Your task to perform on an android device: all mails in gmail Image 0: 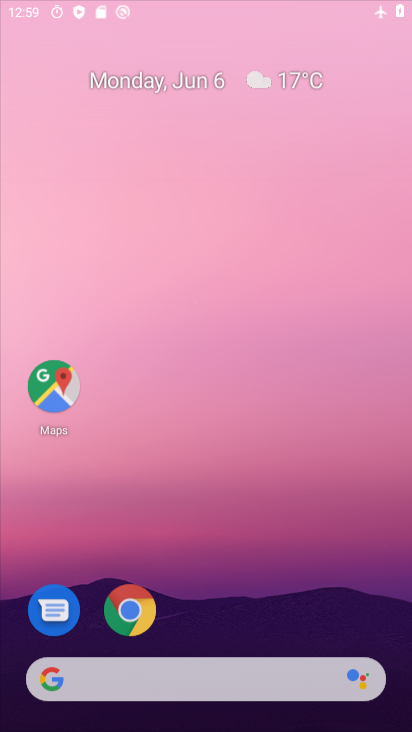
Step 0: click (146, 308)
Your task to perform on an android device: all mails in gmail Image 1: 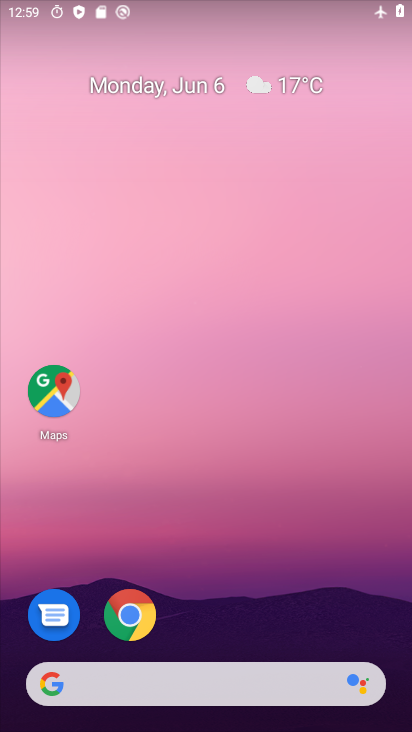
Step 1: drag from (205, 614) to (318, 118)
Your task to perform on an android device: all mails in gmail Image 2: 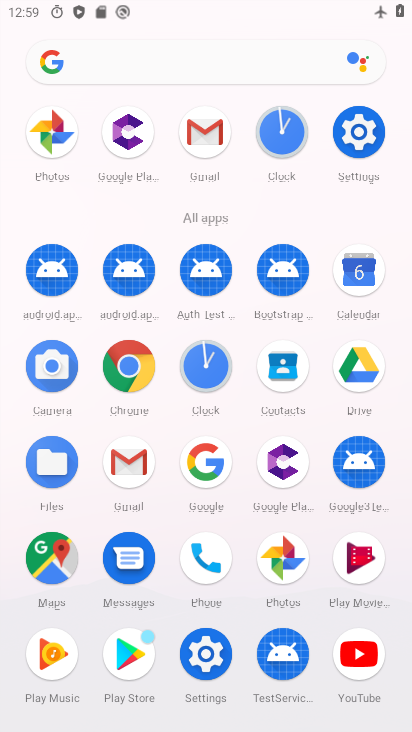
Step 2: click (134, 445)
Your task to perform on an android device: all mails in gmail Image 3: 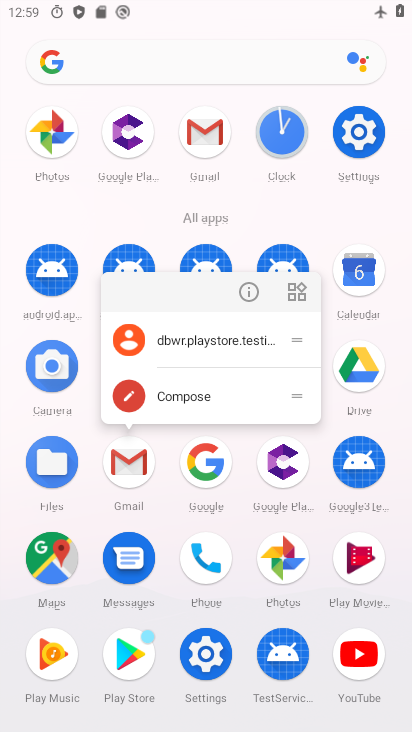
Step 3: click (257, 296)
Your task to perform on an android device: all mails in gmail Image 4: 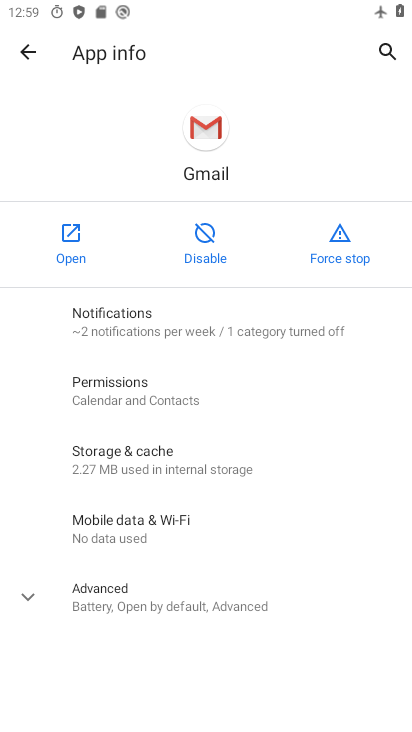
Step 4: click (93, 246)
Your task to perform on an android device: all mails in gmail Image 5: 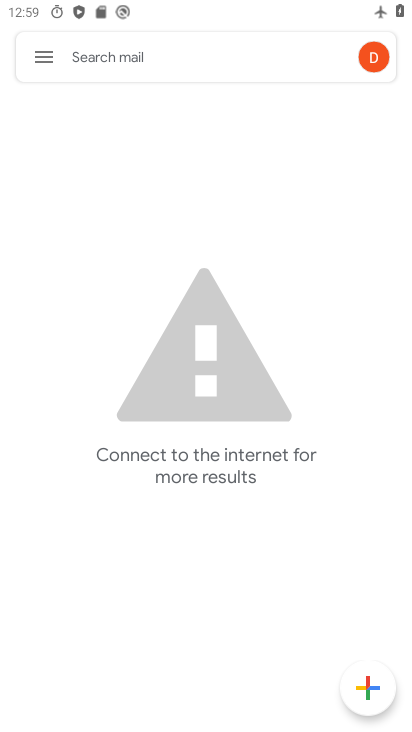
Step 5: click (46, 72)
Your task to perform on an android device: all mails in gmail Image 6: 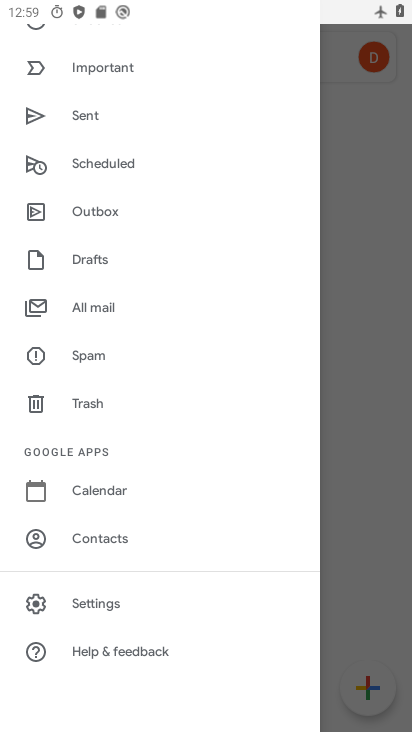
Step 6: click (104, 291)
Your task to perform on an android device: all mails in gmail Image 7: 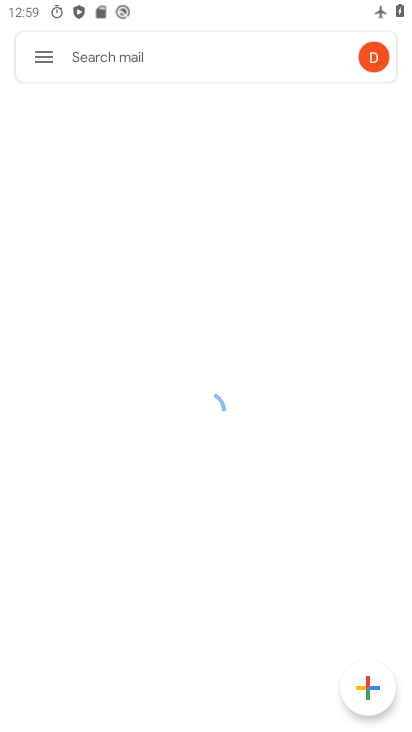
Step 7: drag from (216, 543) to (255, 87)
Your task to perform on an android device: all mails in gmail Image 8: 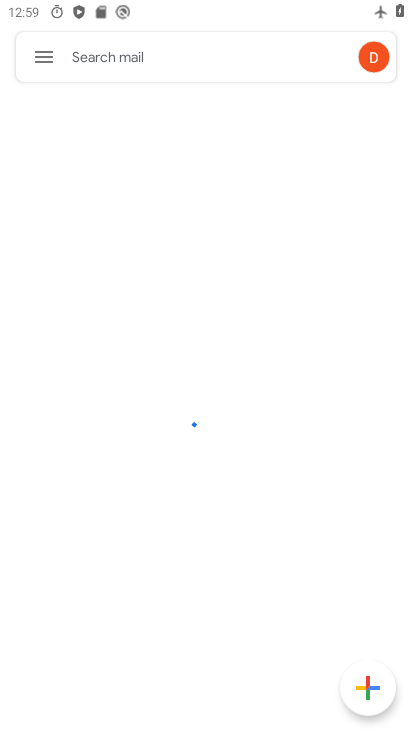
Step 8: drag from (229, 454) to (228, 156)
Your task to perform on an android device: all mails in gmail Image 9: 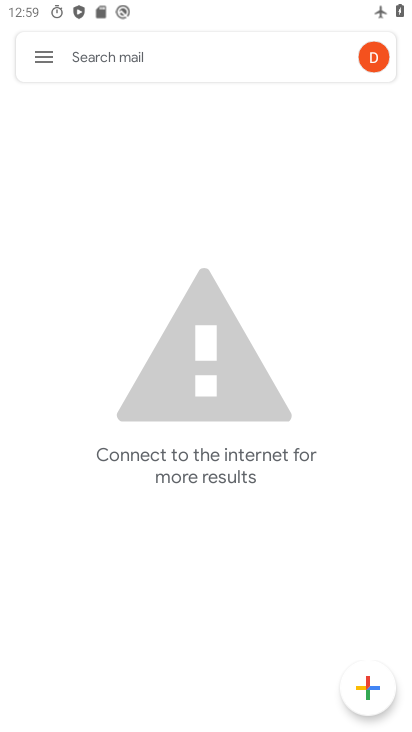
Step 9: drag from (206, 328) to (208, 60)
Your task to perform on an android device: all mails in gmail Image 10: 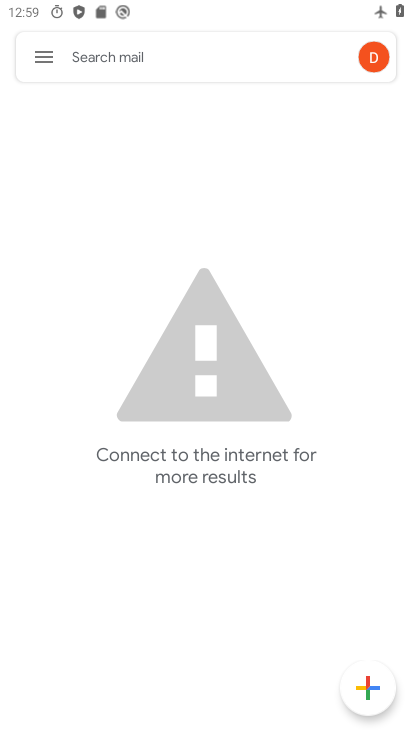
Step 10: click (34, 37)
Your task to perform on an android device: all mails in gmail Image 11: 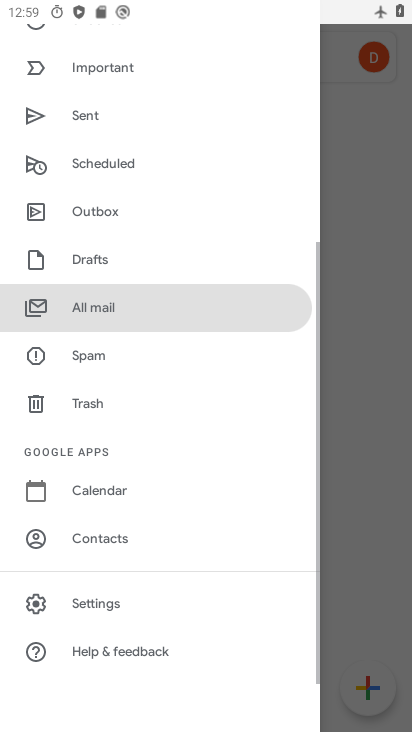
Step 11: click (124, 312)
Your task to perform on an android device: all mails in gmail Image 12: 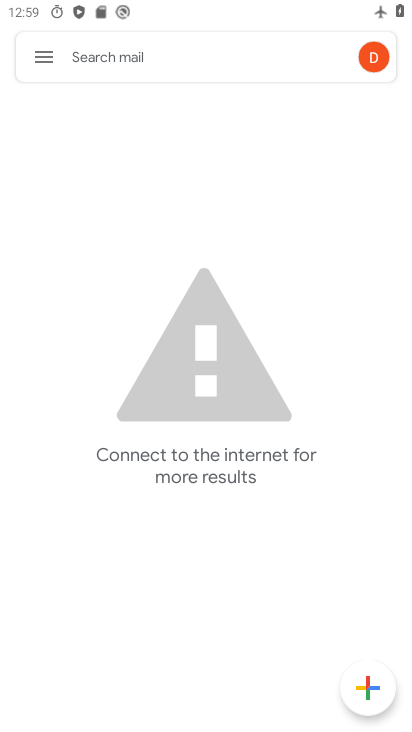
Step 12: task complete